Your task to perform on an android device: Add logitech g pro to the cart on newegg, then select checkout. Image 0: 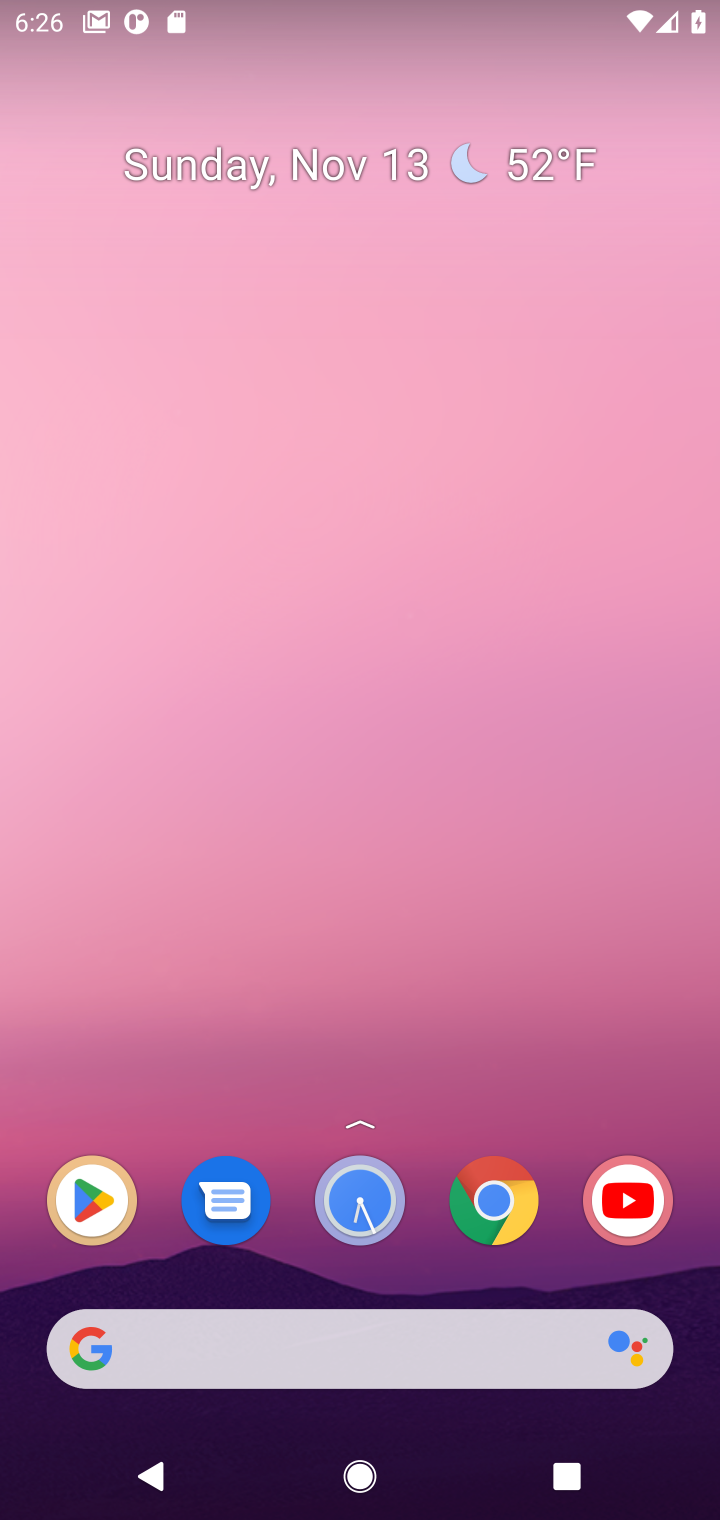
Step 0: press home button
Your task to perform on an android device: Add logitech g pro to the cart on newegg, then select checkout. Image 1: 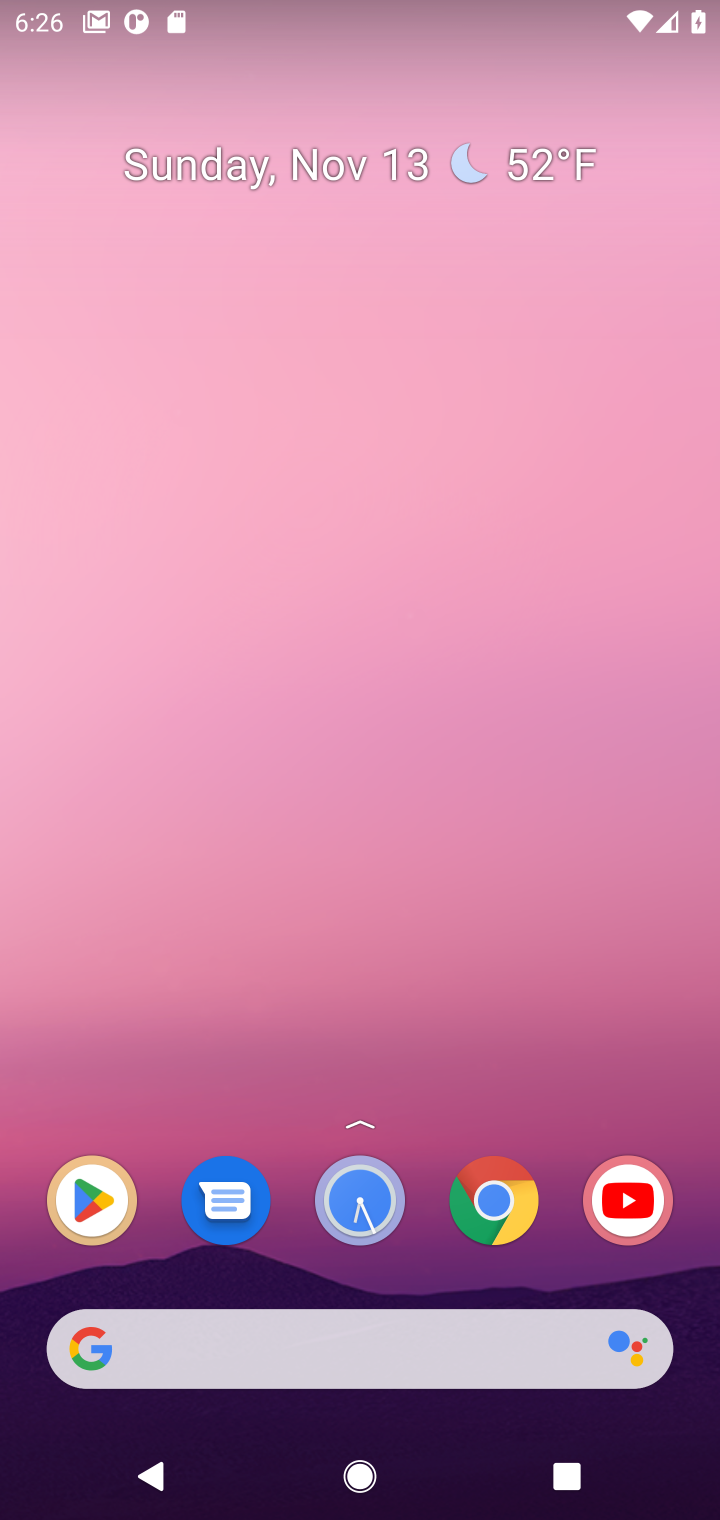
Step 1: click (476, 1218)
Your task to perform on an android device: Add logitech g pro to the cart on newegg, then select checkout. Image 2: 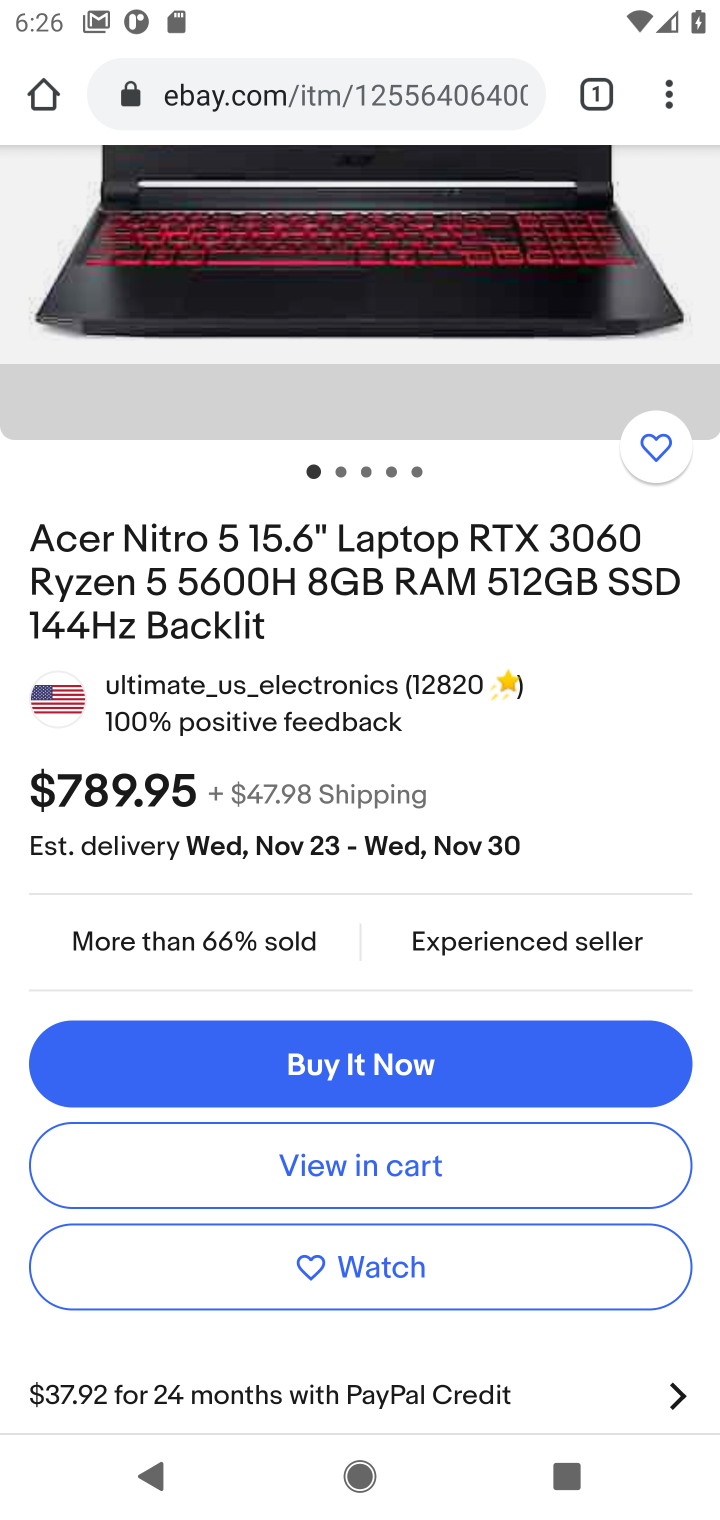
Step 2: click (591, 95)
Your task to perform on an android device: Add logitech g pro to the cart on newegg, then select checkout. Image 3: 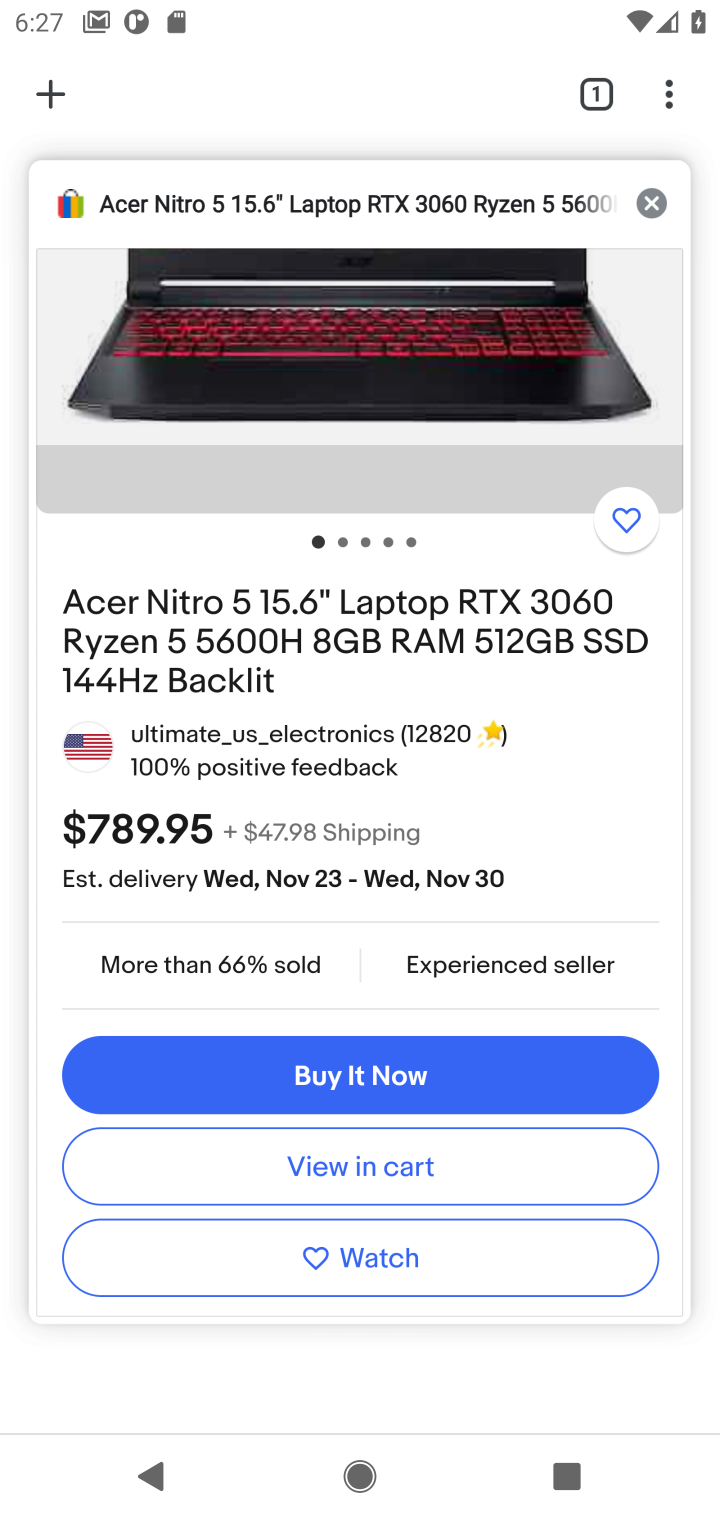
Step 3: click (39, 94)
Your task to perform on an android device: Add logitech g pro to the cart on newegg, then select checkout. Image 4: 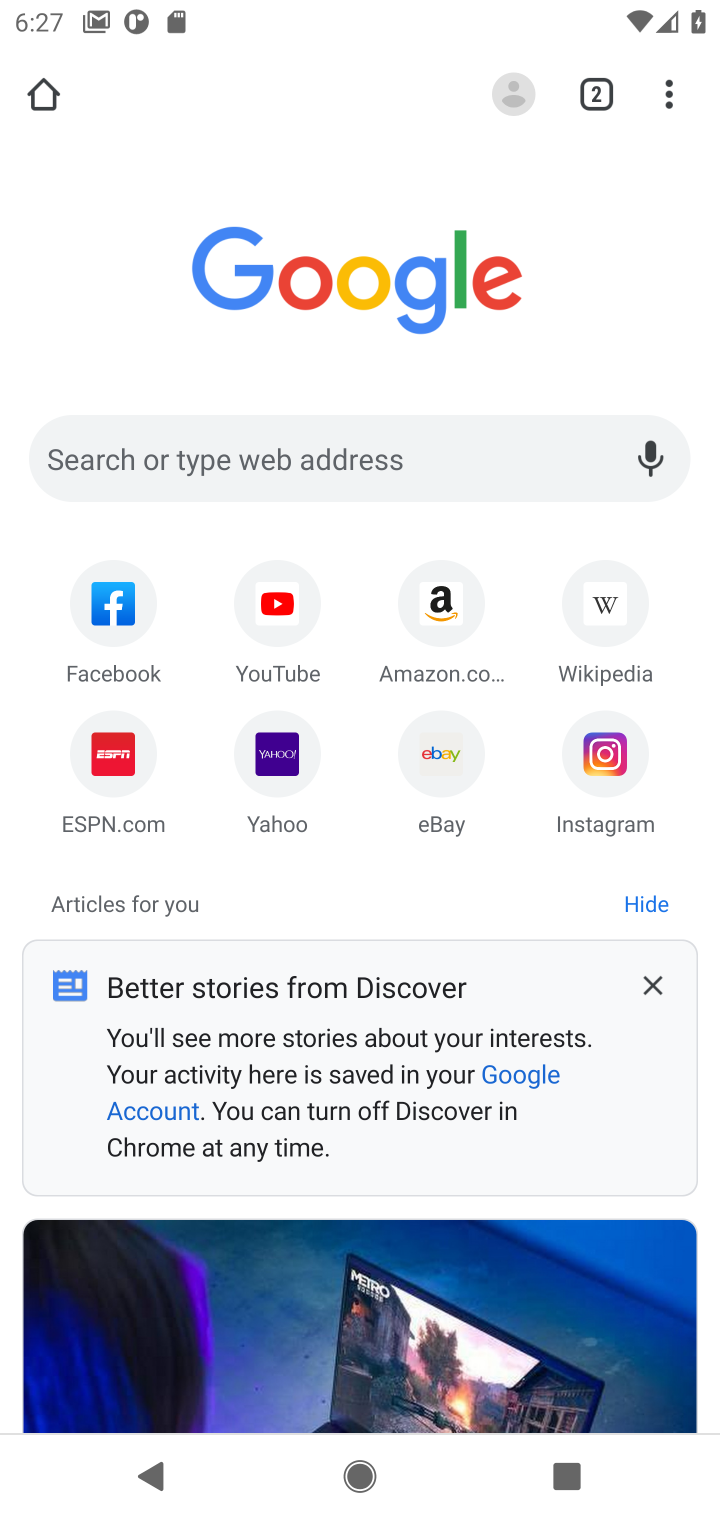
Step 4: click (362, 448)
Your task to perform on an android device: Add logitech g pro to the cart on newegg, then select checkout. Image 5: 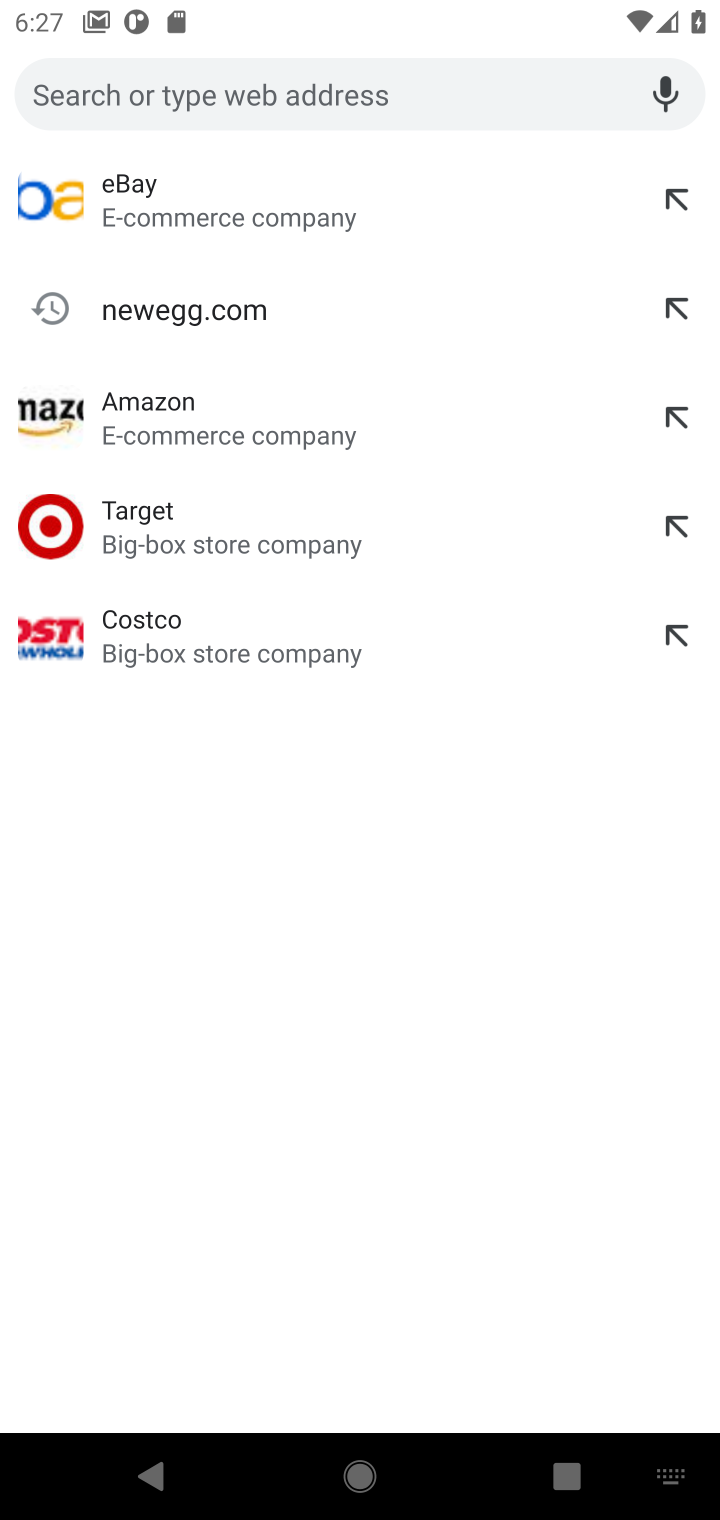
Step 5: click (223, 306)
Your task to perform on an android device: Add logitech g pro to the cart on newegg, then select checkout. Image 6: 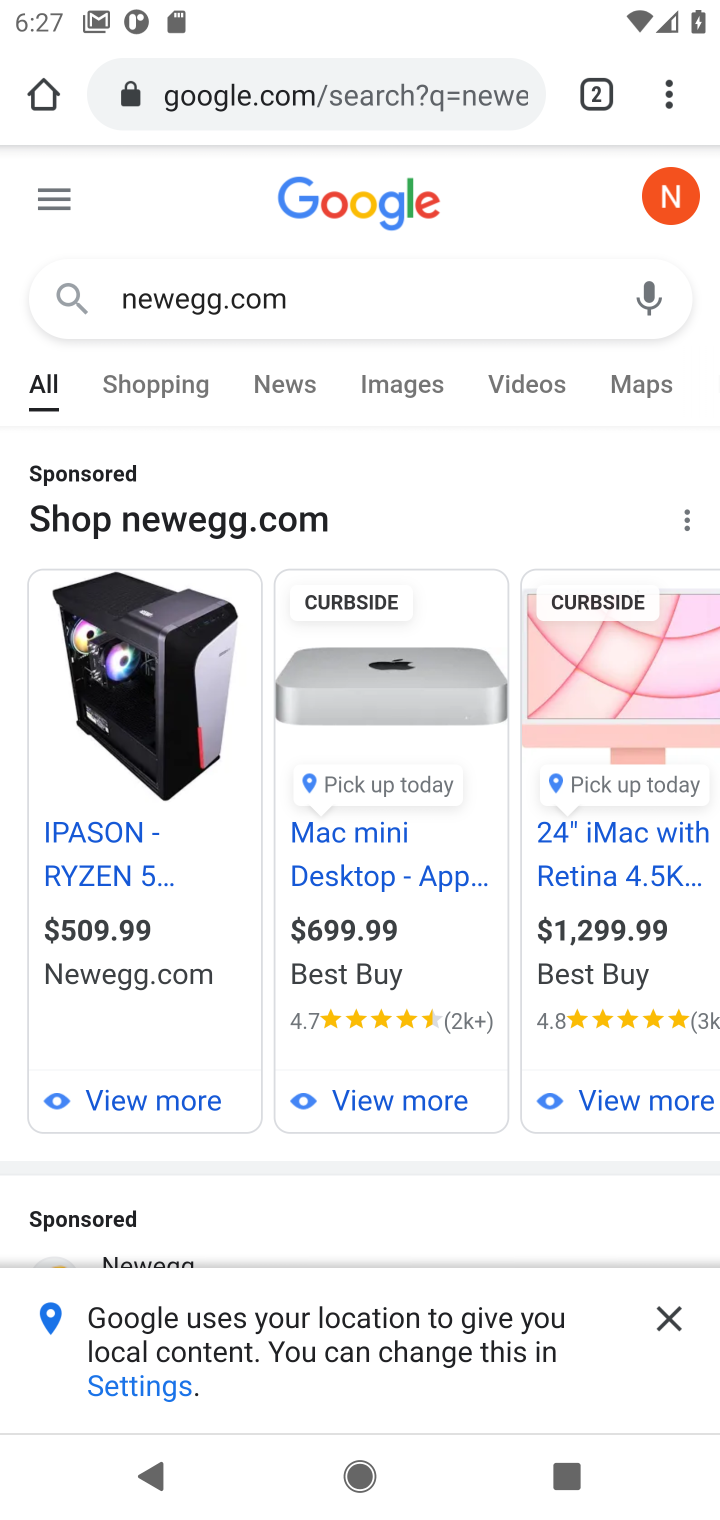
Step 6: click (663, 1316)
Your task to perform on an android device: Add logitech g pro to the cart on newegg, then select checkout. Image 7: 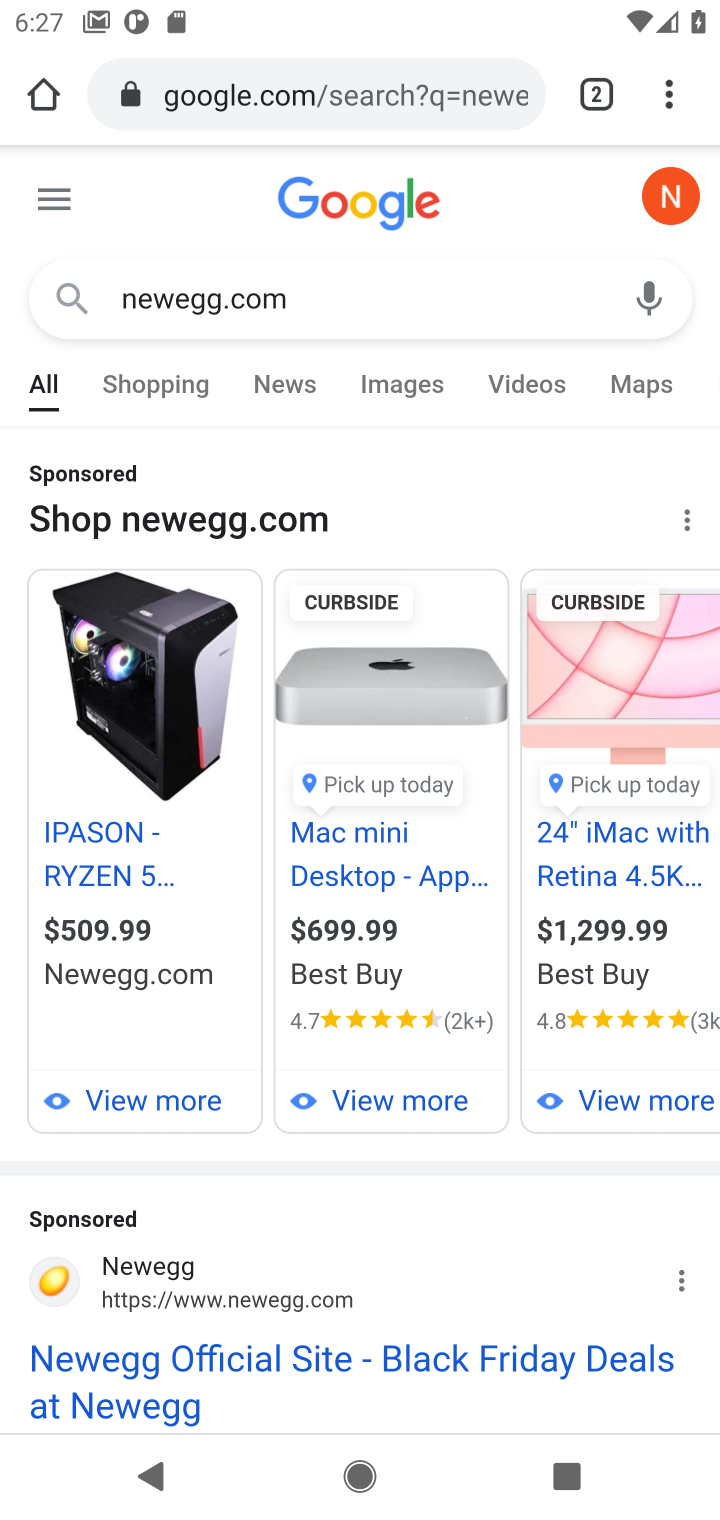
Step 7: click (145, 1368)
Your task to perform on an android device: Add logitech g pro to the cart on newegg, then select checkout. Image 8: 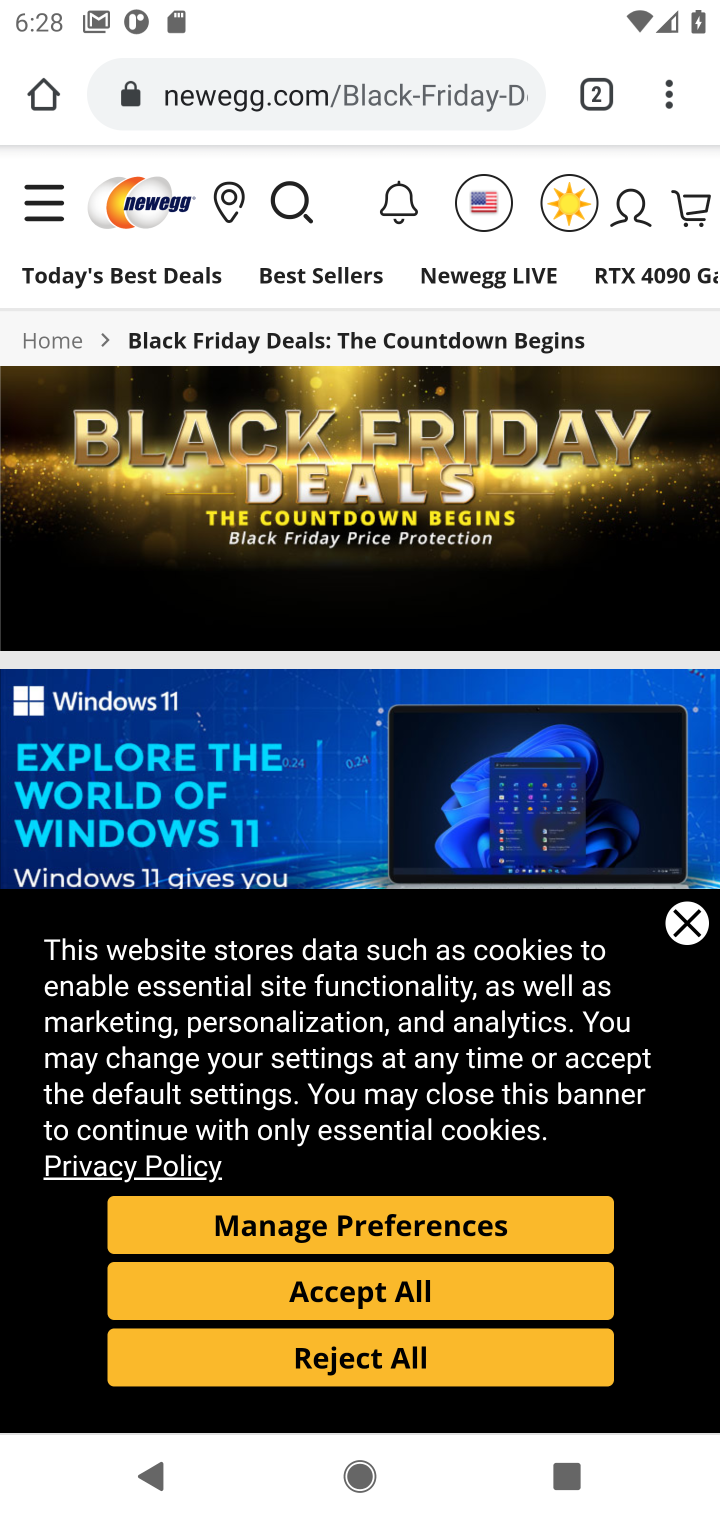
Step 8: click (693, 930)
Your task to perform on an android device: Add logitech g pro to the cart on newegg, then select checkout. Image 9: 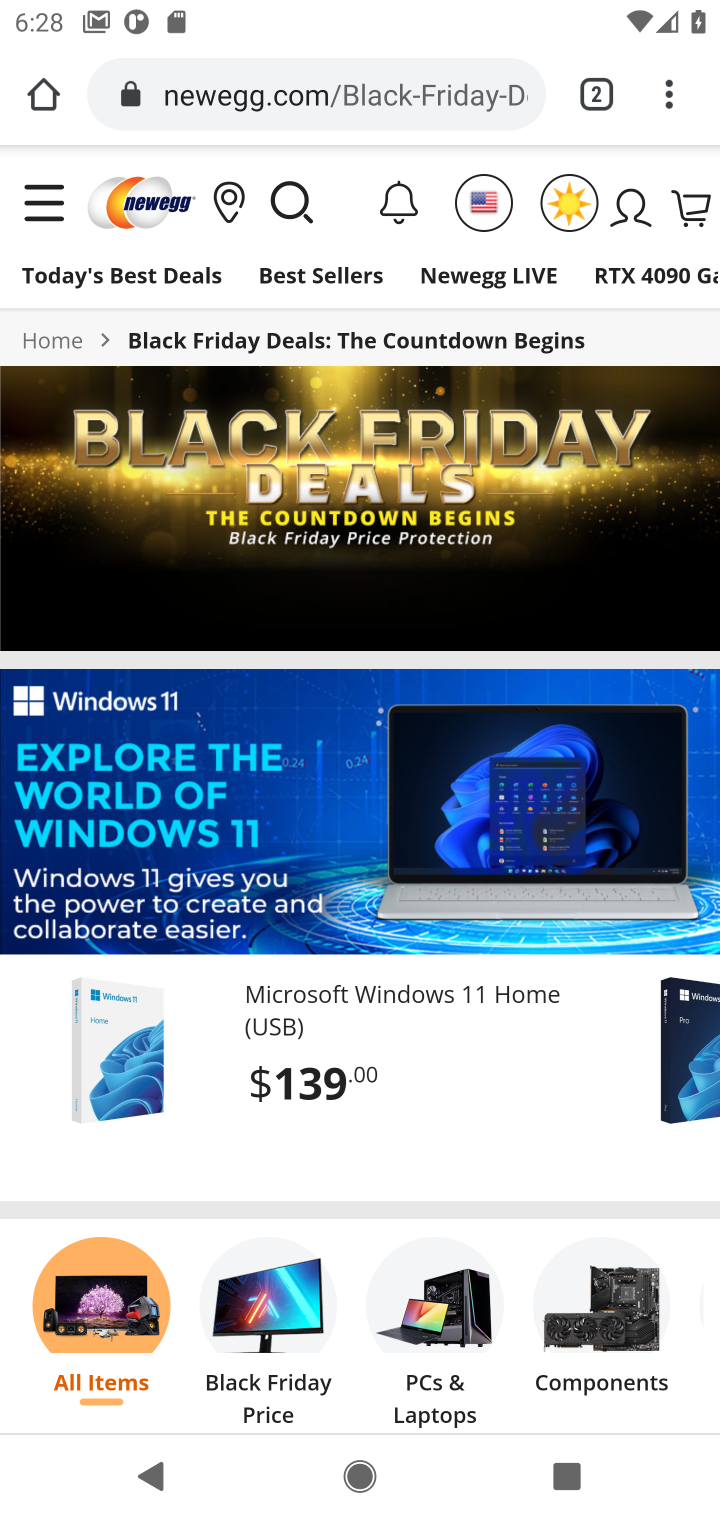
Step 9: click (293, 203)
Your task to perform on an android device: Add logitech g pro to the cart on newegg, then select checkout. Image 10: 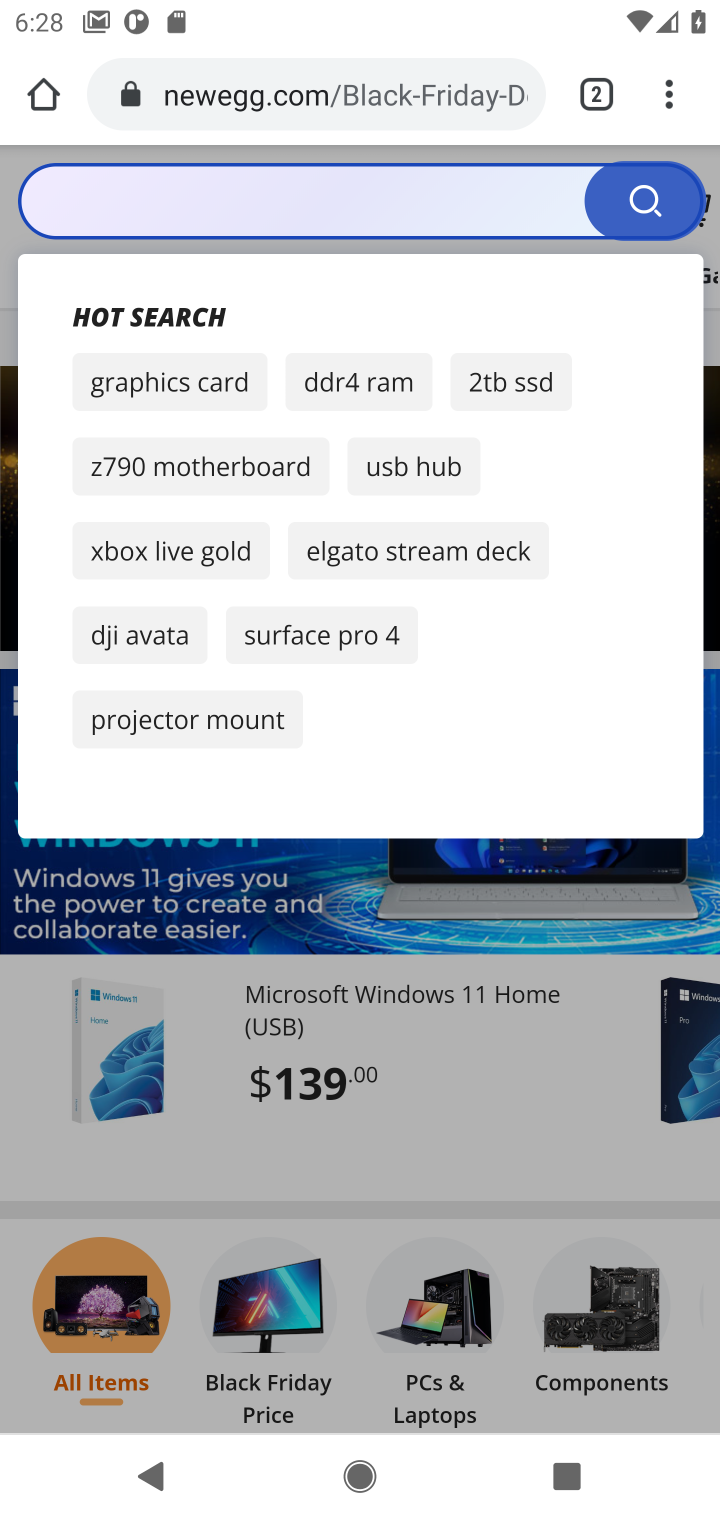
Step 10: type "logitech g pro"
Your task to perform on an android device: Add logitech g pro to the cart on newegg, then select checkout. Image 11: 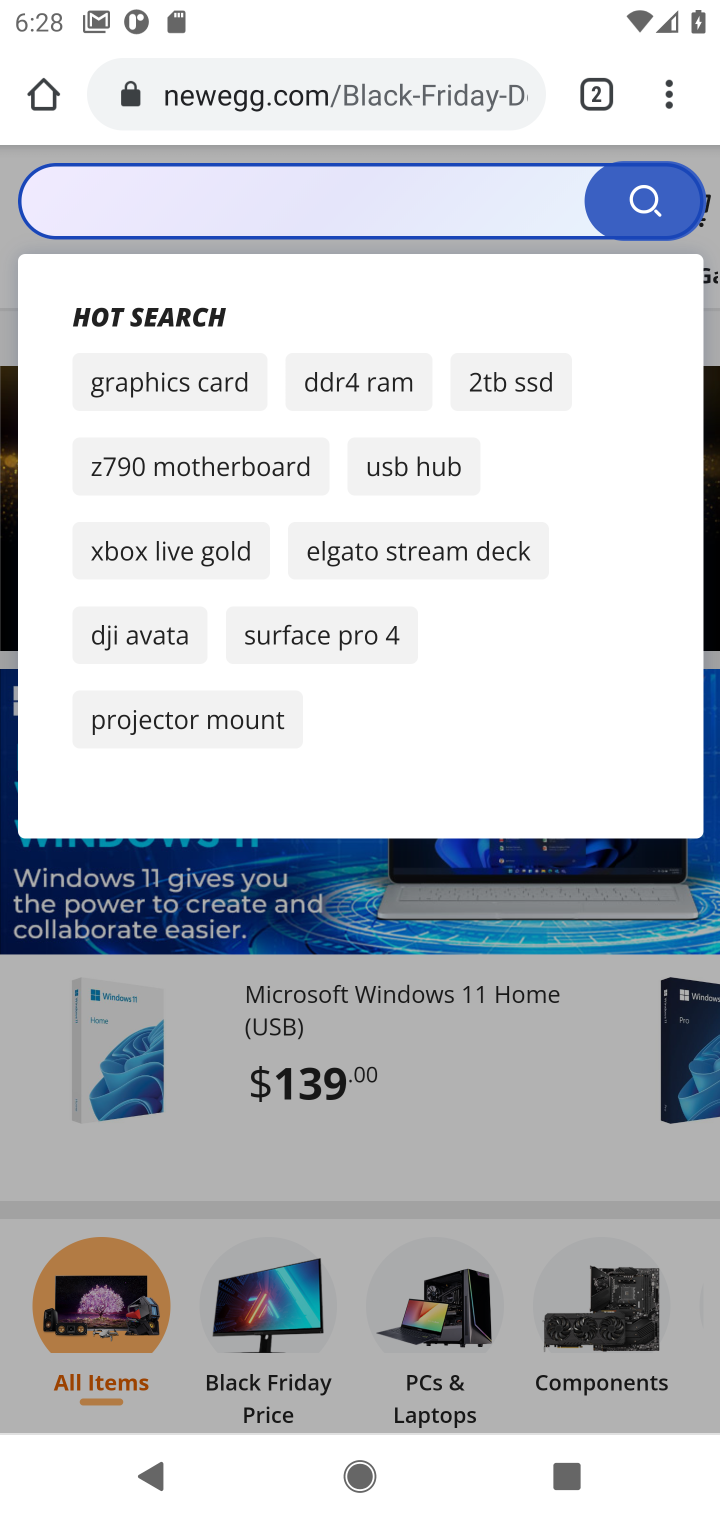
Step 11: click (81, 202)
Your task to perform on an android device: Add logitech g pro to the cart on newegg, then select checkout. Image 12: 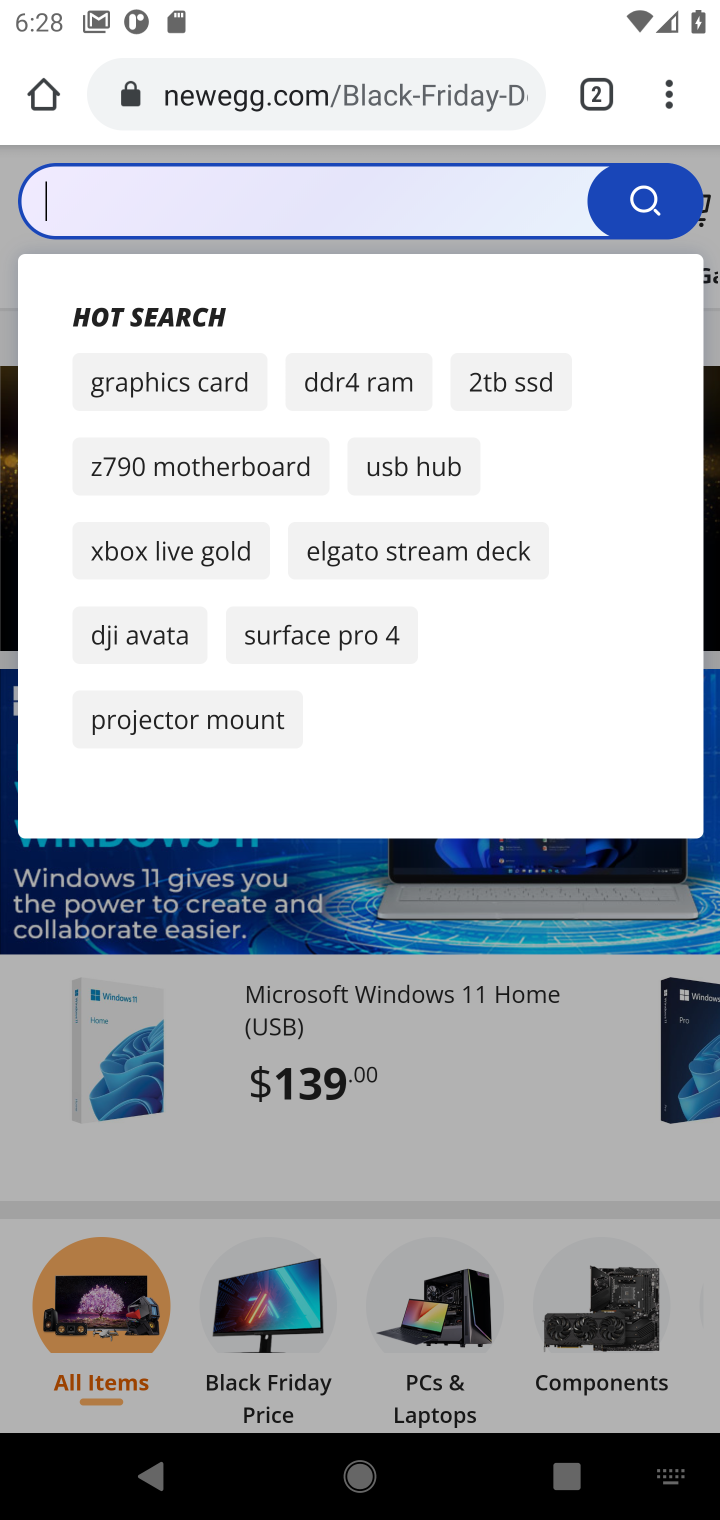
Step 12: type "logitech g pro"
Your task to perform on an android device: Add logitech g pro to the cart on newegg, then select checkout. Image 13: 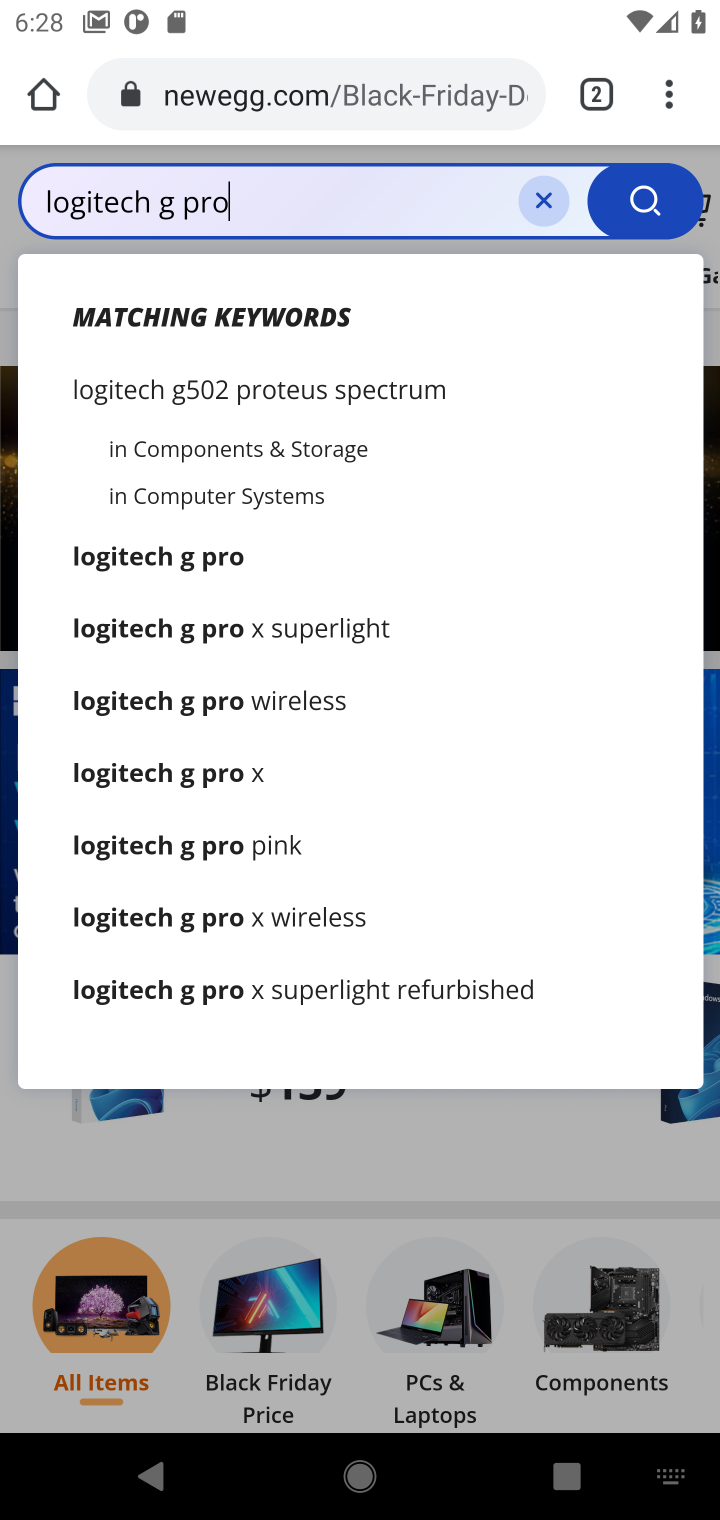
Step 13: click (175, 555)
Your task to perform on an android device: Add logitech g pro to the cart on newegg, then select checkout. Image 14: 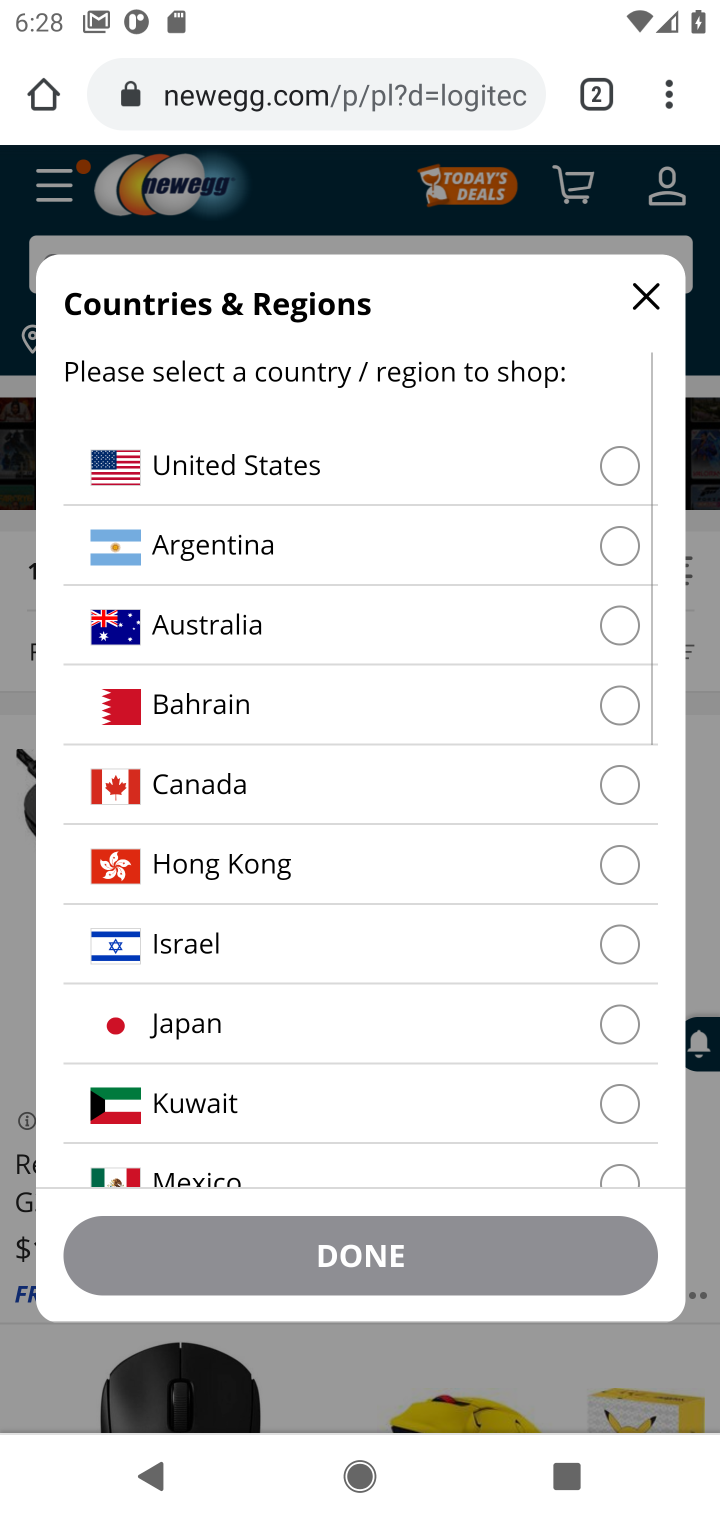
Step 14: click (605, 452)
Your task to perform on an android device: Add logitech g pro to the cart on newegg, then select checkout. Image 15: 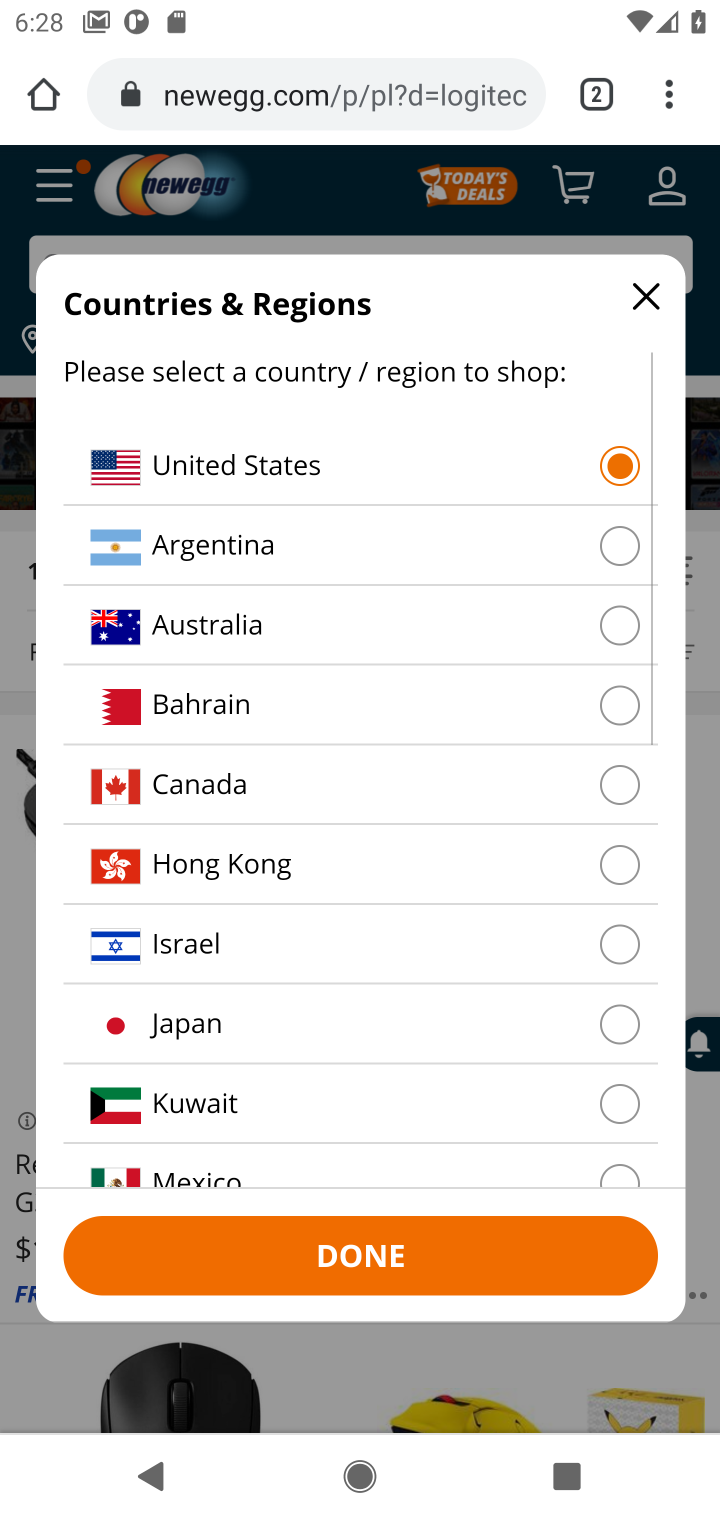
Step 15: click (399, 1250)
Your task to perform on an android device: Add logitech g pro to the cart on newegg, then select checkout. Image 16: 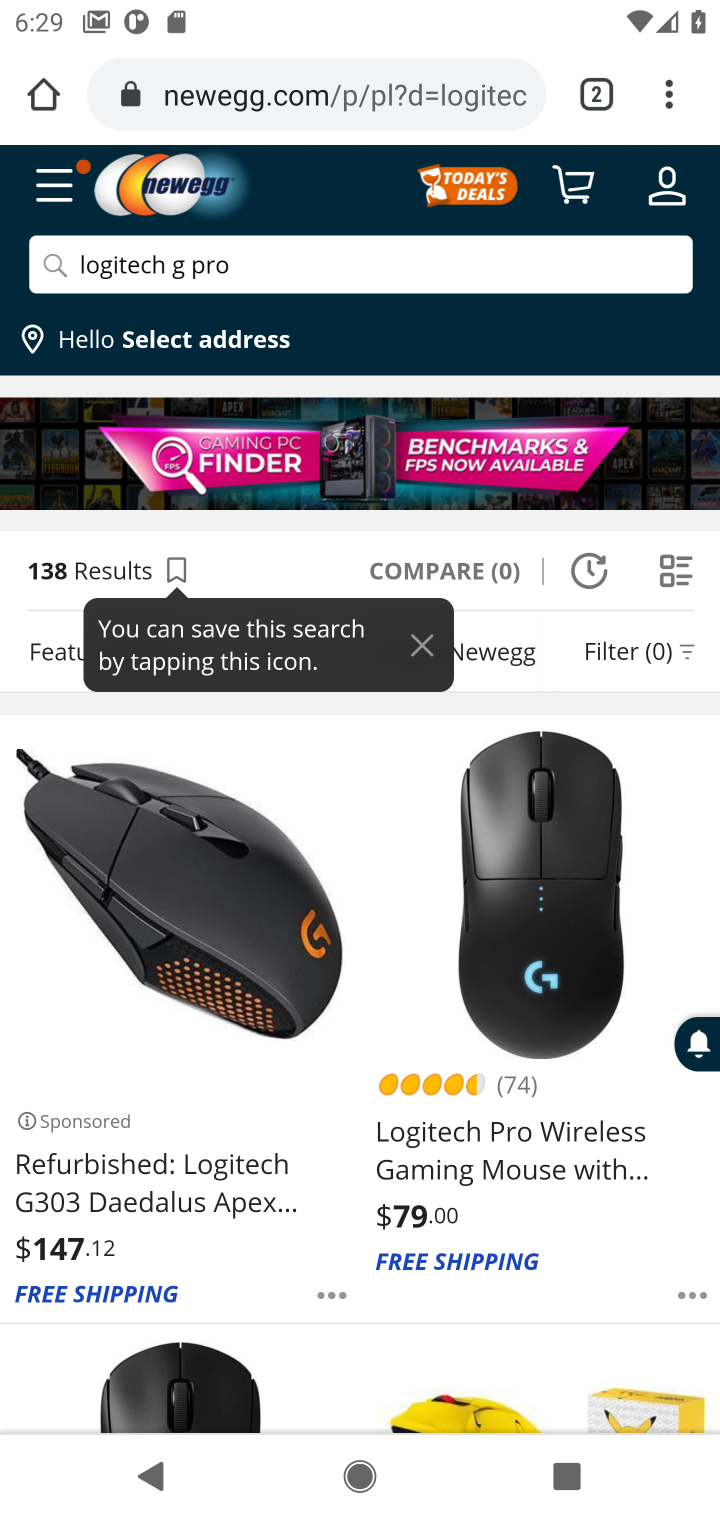
Step 16: click (546, 1133)
Your task to perform on an android device: Add logitech g pro to the cart on newegg, then select checkout. Image 17: 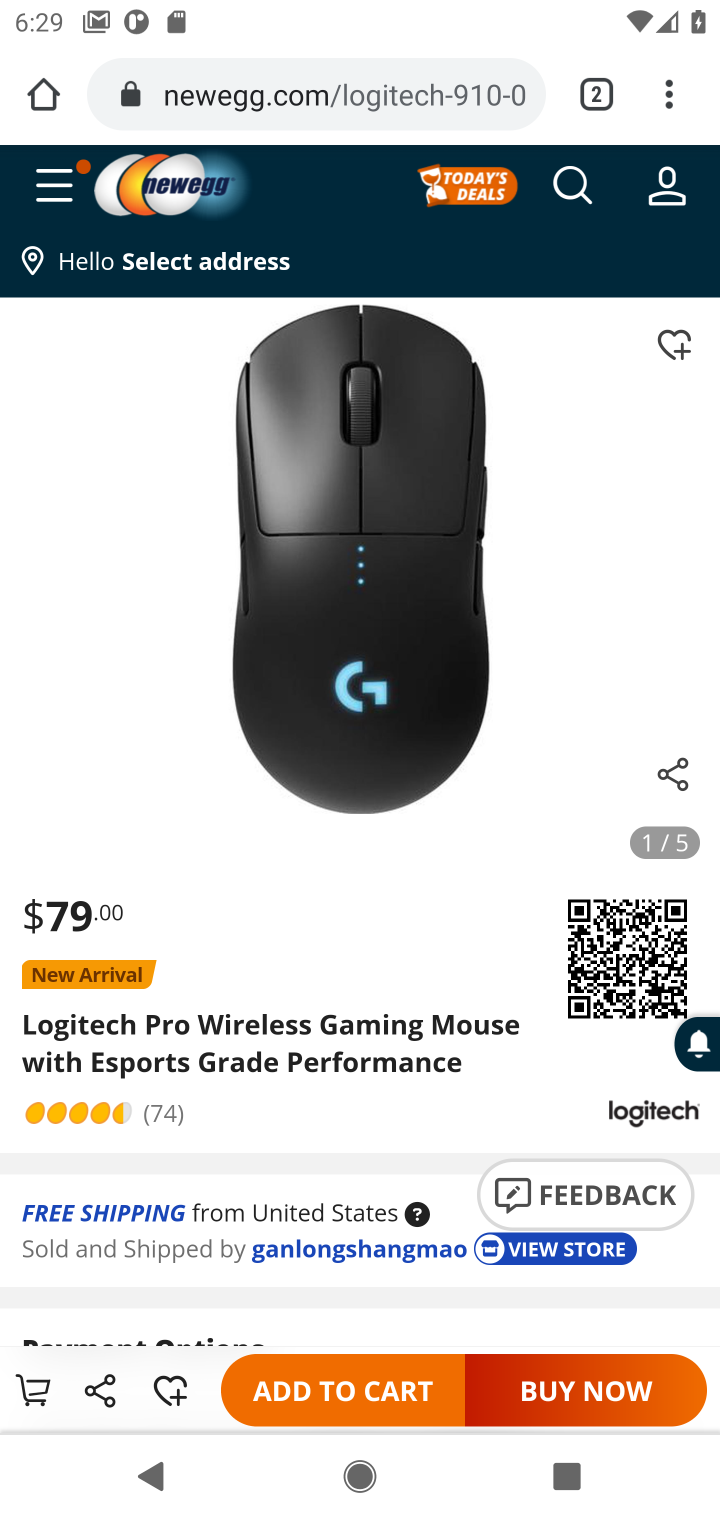
Step 17: click (342, 1400)
Your task to perform on an android device: Add logitech g pro to the cart on newegg, then select checkout. Image 18: 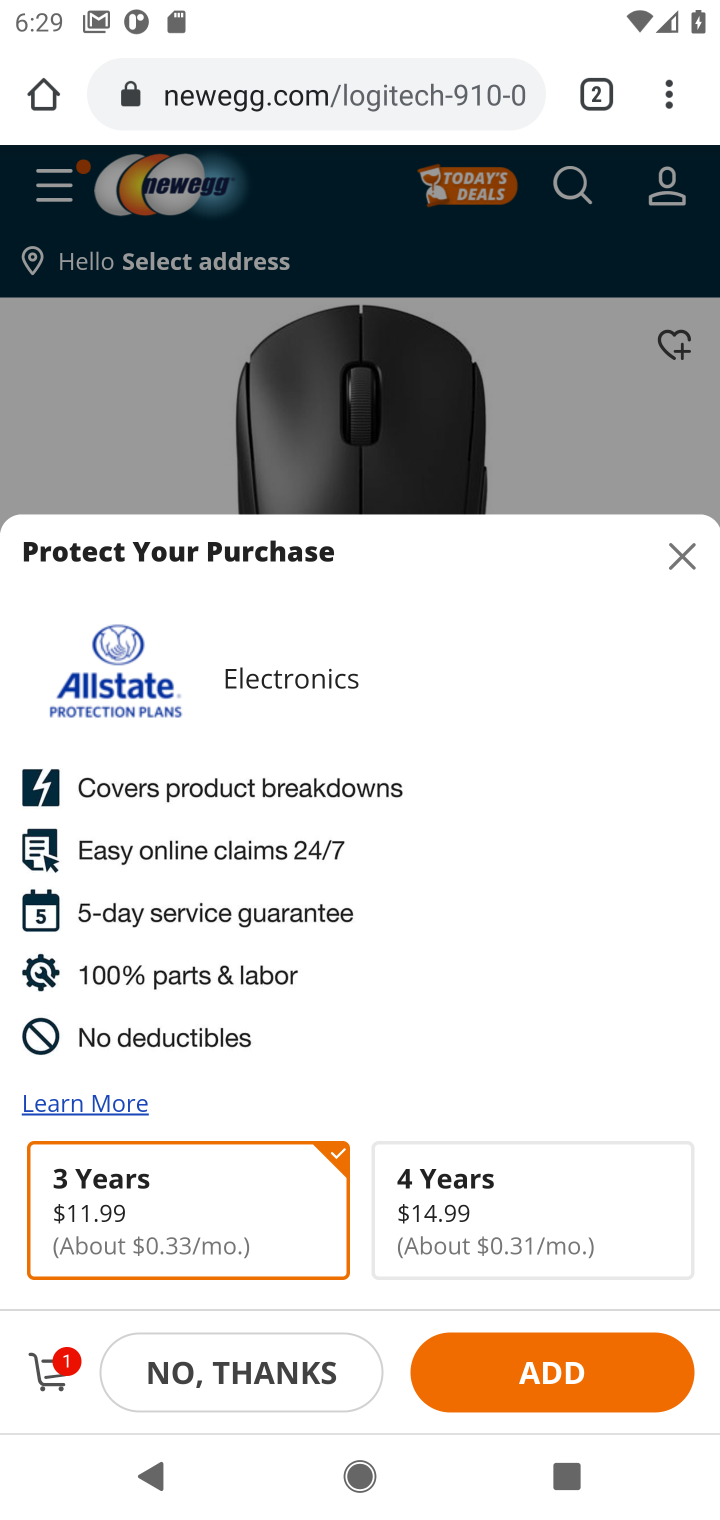
Step 18: click (40, 1379)
Your task to perform on an android device: Add logitech g pro to the cart on newegg, then select checkout. Image 19: 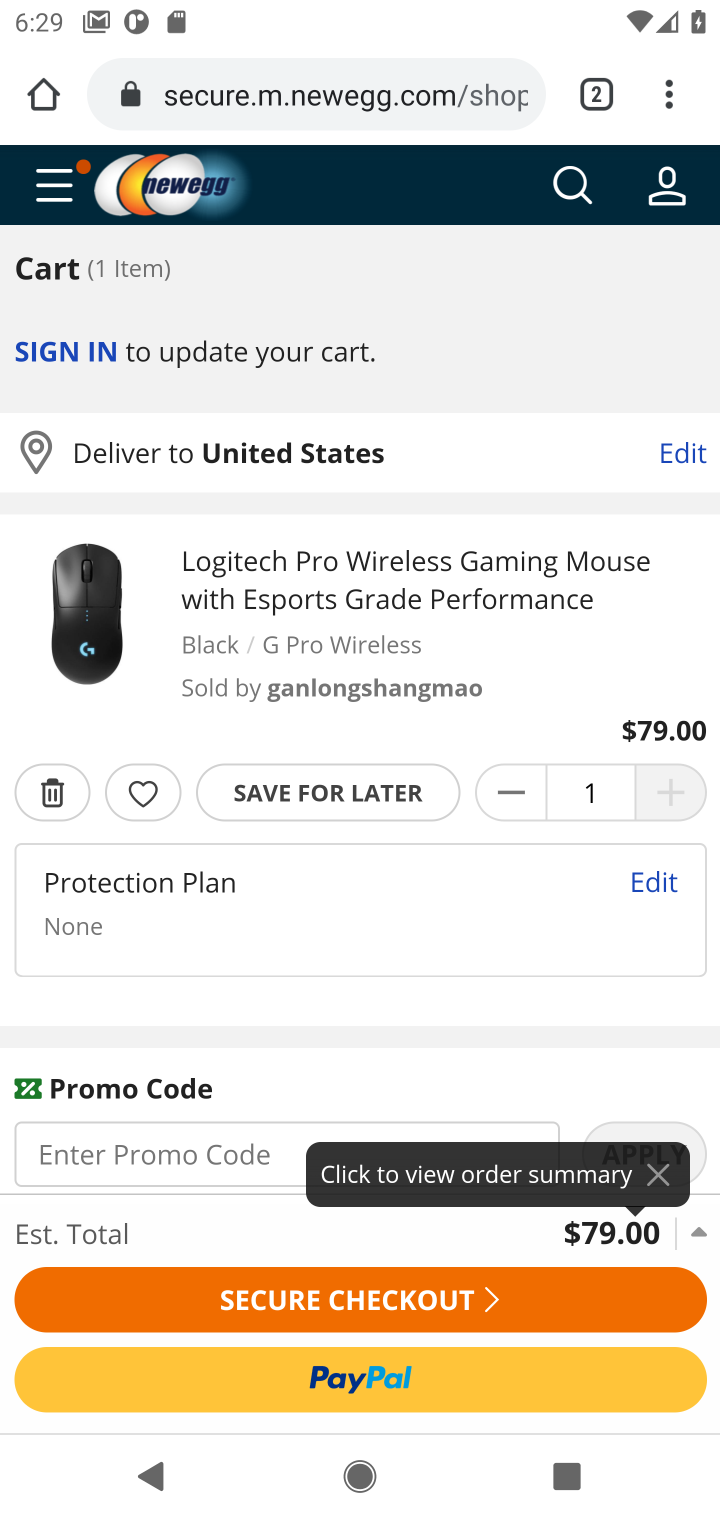
Step 19: click (410, 1297)
Your task to perform on an android device: Add logitech g pro to the cart on newegg, then select checkout. Image 20: 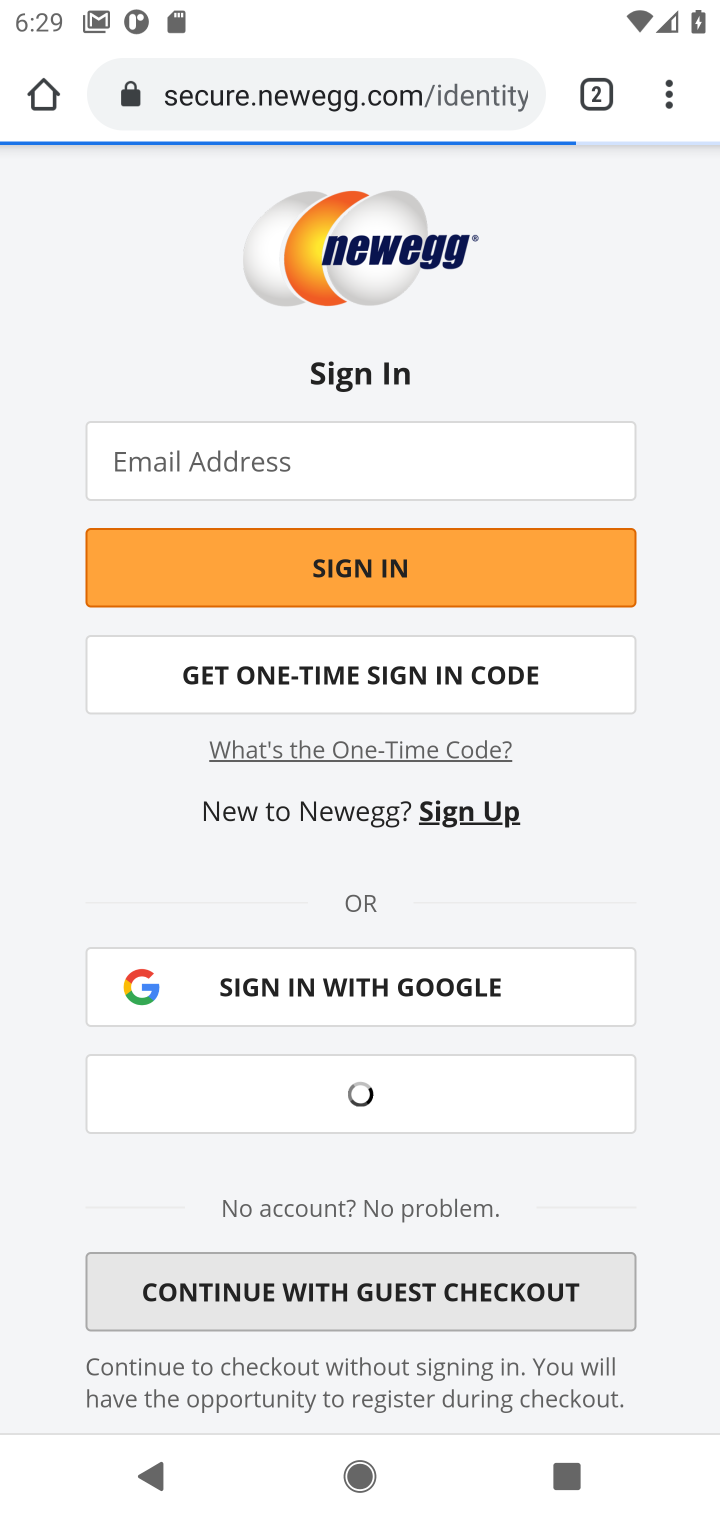
Step 20: task complete